Your task to perform on an android device: toggle sleep mode Image 0: 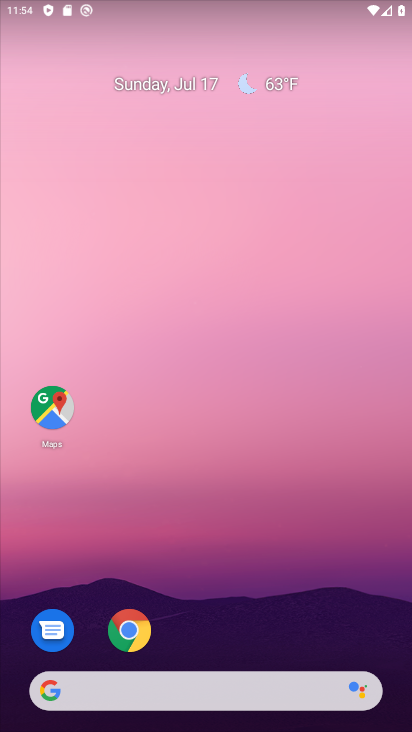
Step 0: drag from (246, 678) to (326, 163)
Your task to perform on an android device: toggle sleep mode Image 1: 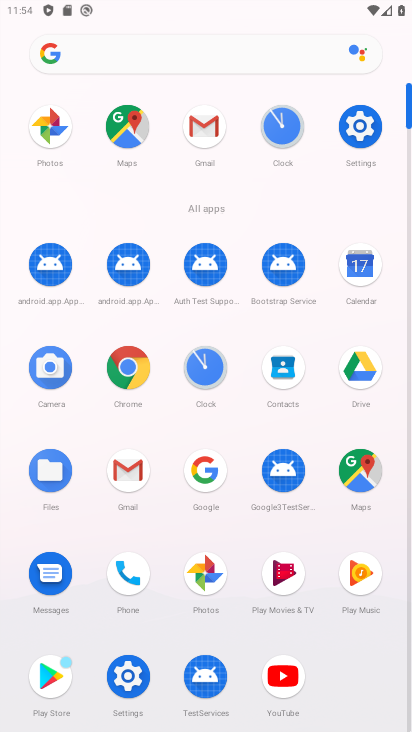
Step 1: click (130, 677)
Your task to perform on an android device: toggle sleep mode Image 2: 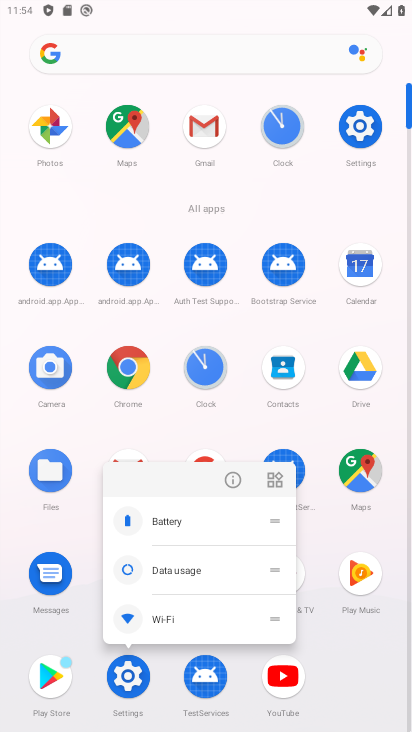
Step 2: click (130, 677)
Your task to perform on an android device: toggle sleep mode Image 3: 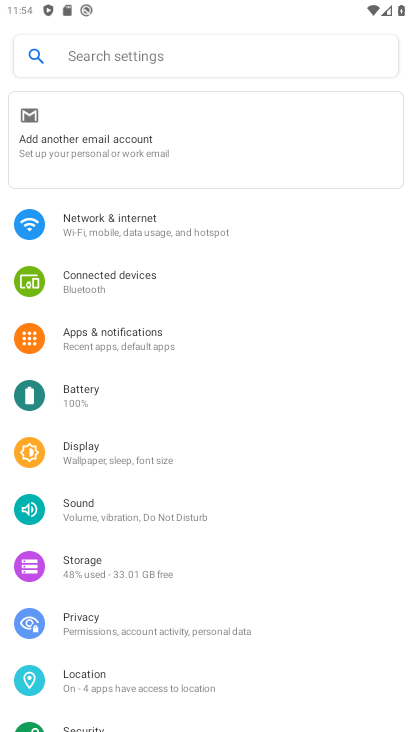
Step 3: click (81, 454)
Your task to perform on an android device: toggle sleep mode Image 4: 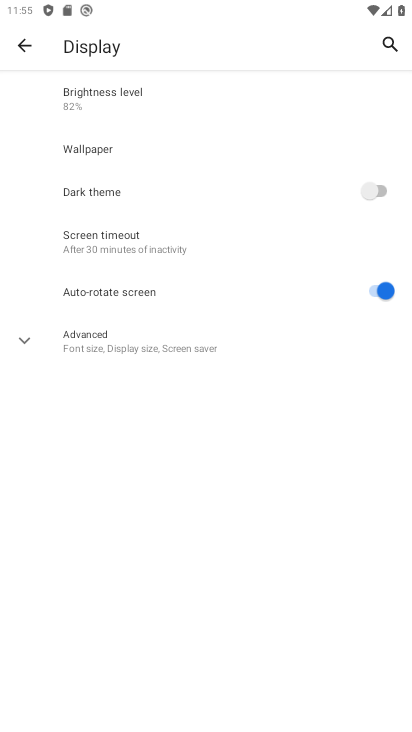
Step 4: click (78, 327)
Your task to perform on an android device: toggle sleep mode Image 5: 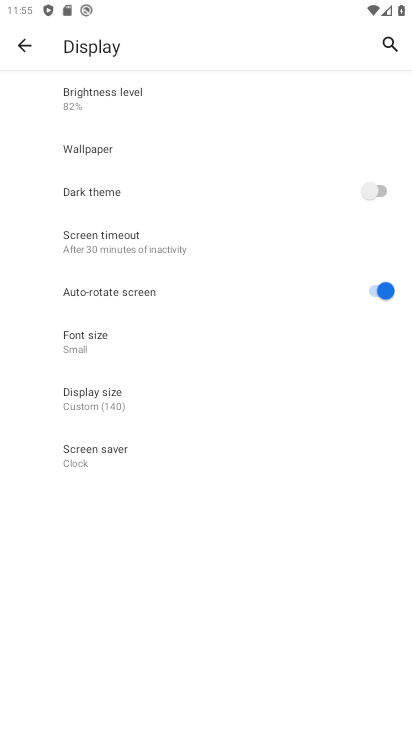
Step 5: task complete